Your task to perform on an android device: empty trash in the gmail app Image 0: 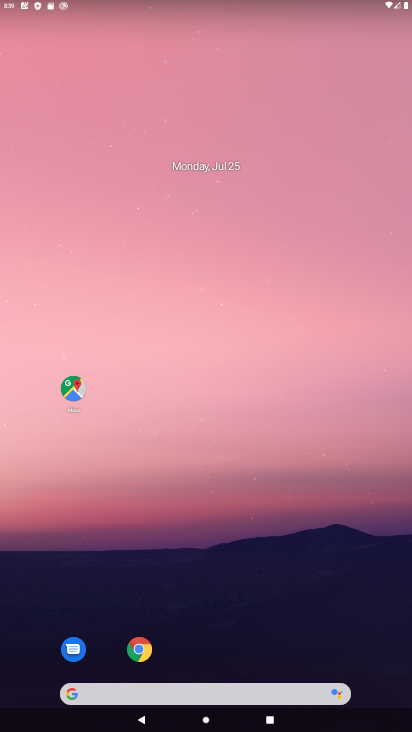
Step 0: drag from (230, 667) to (255, 35)
Your task to perform on an android device: empty trash in the gmail app Image 1: 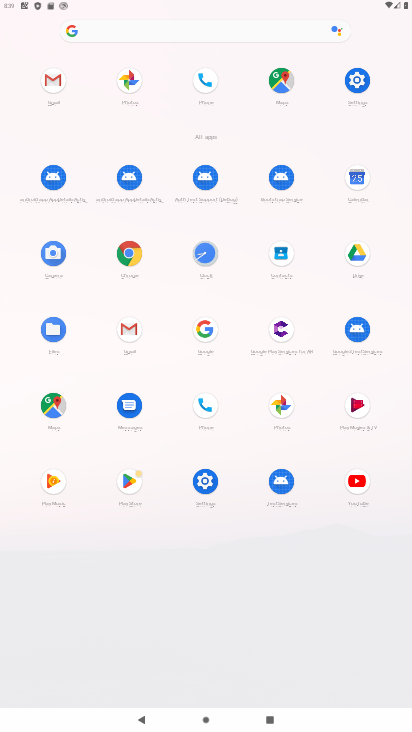
Step 1: click (131, 334)
Your task to perform on an android device: empty trash in the gmail app Image 2: 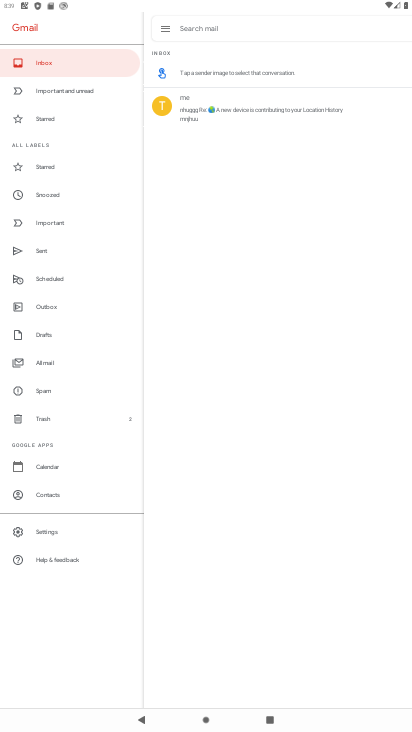
Step 2: click (47, 425)
Your task to perform on an android device: empty trash in the gmail app Image 3: 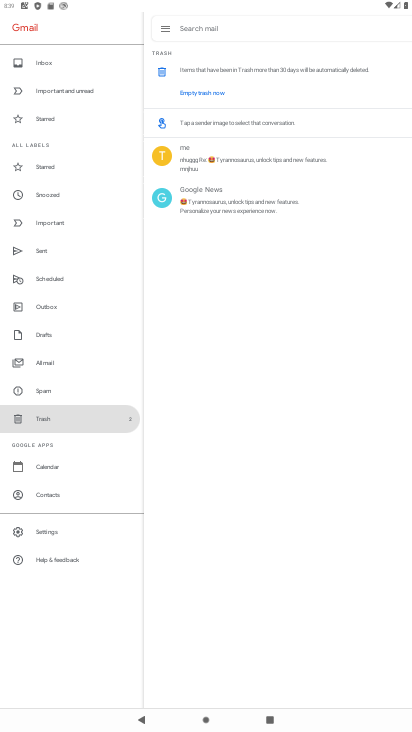
Step 3: click (185, 95)
Your task to perform on an android device: empty trash in the gmail app Image 4: 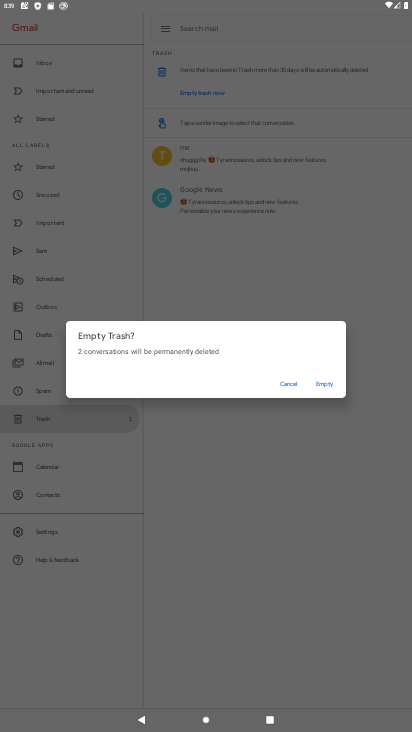
Step 4: click (320, 384)
Your task to perform on an android device: empty trash in the gmail app Image 5: 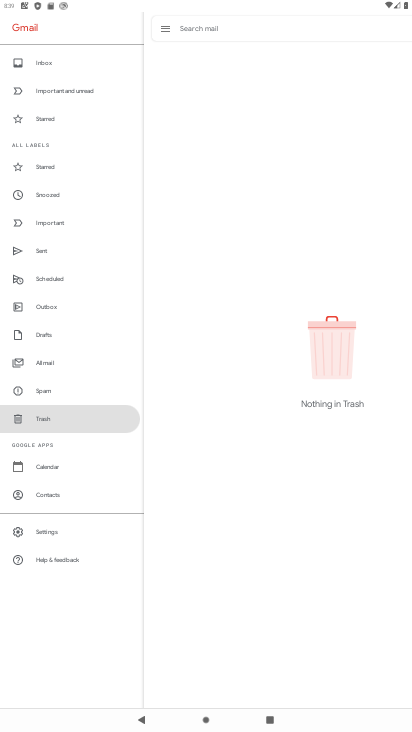
Step 5: task complete